Your task to perform on an android device: What's on my calendar today? Image 0: 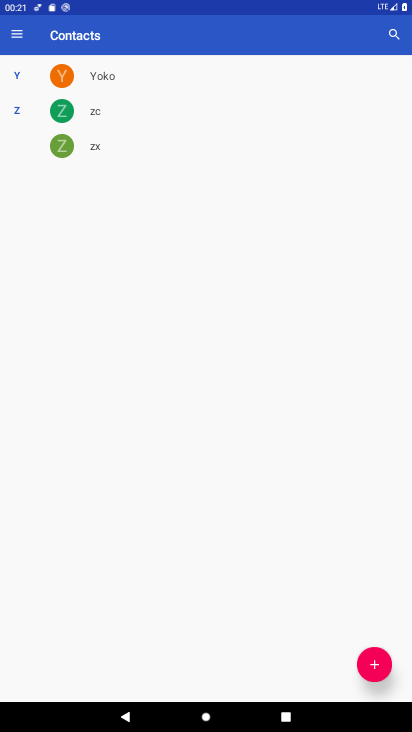
Step 0: press home button
Your task to perform on an android device: What's on my calendar today? Image 1: 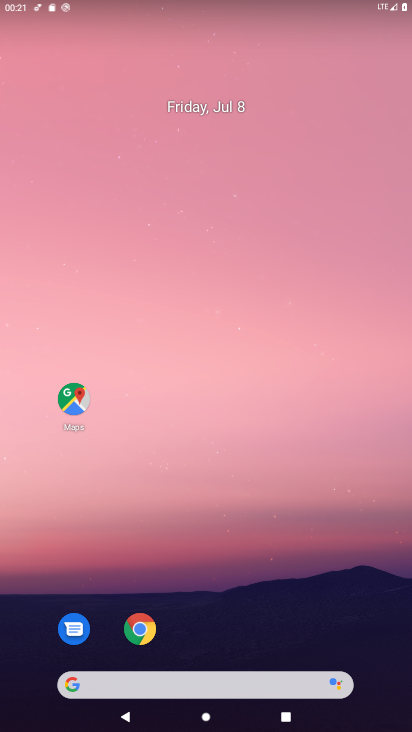
Step 1: drag from (357, 573) to (328, 12)
Your task to perform on an android device: What's on my calendar today? Image 2: 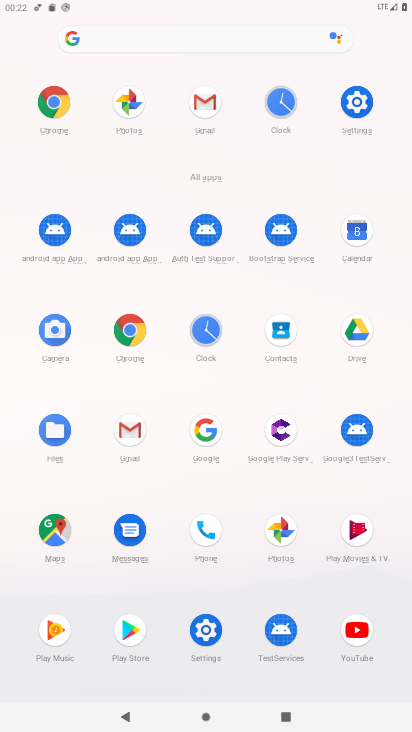
Step 2: click (357, 236)
Your task to perform on an android device: What's on my calendar today? Image 3: 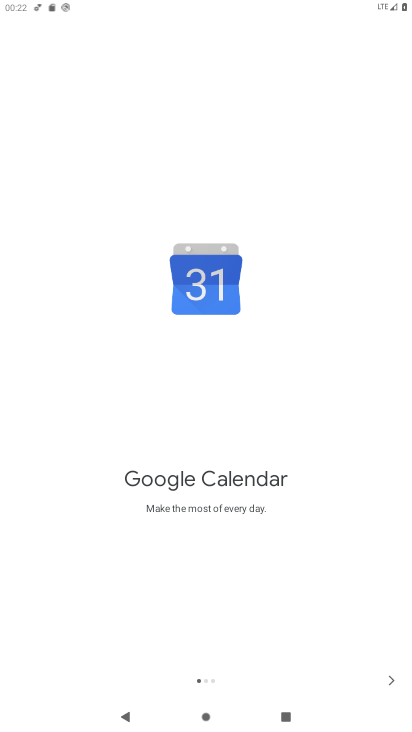
Step 3: click (395, 680)
Your task to perform on an android device: What's on my calendar today? Image 4: 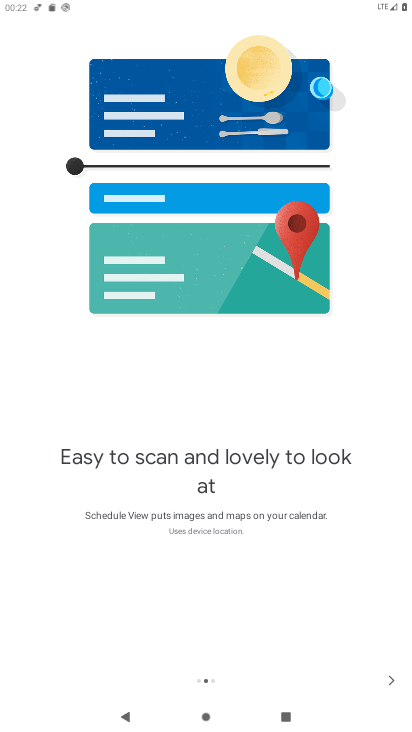
Step 4: click (395, 680)
Your task to perform on an android device: What's on my calendar today? Image 5: 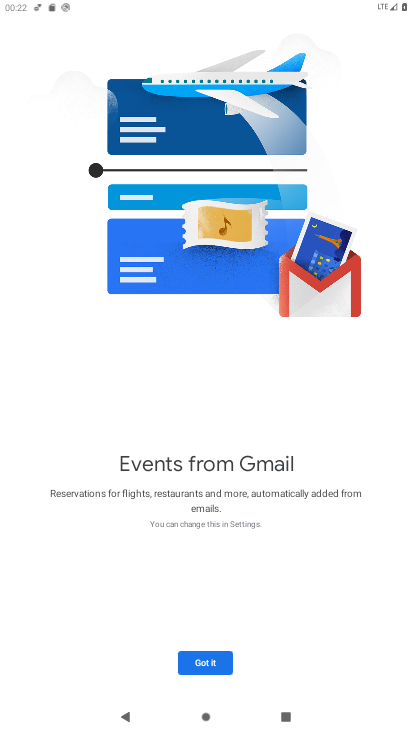
Step 5: click (217, 665)
Your task to perform on an android device: What's on my calendar today? Image 6: 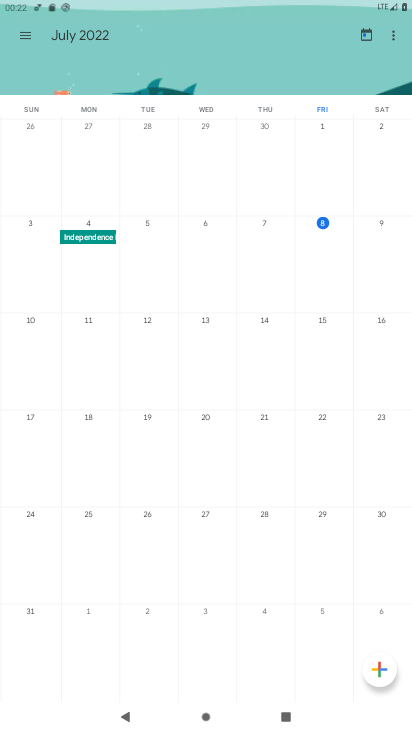
Step 6: click (319, 245)
Your task to perform on an android device: What's on my calendar today? Image 7: 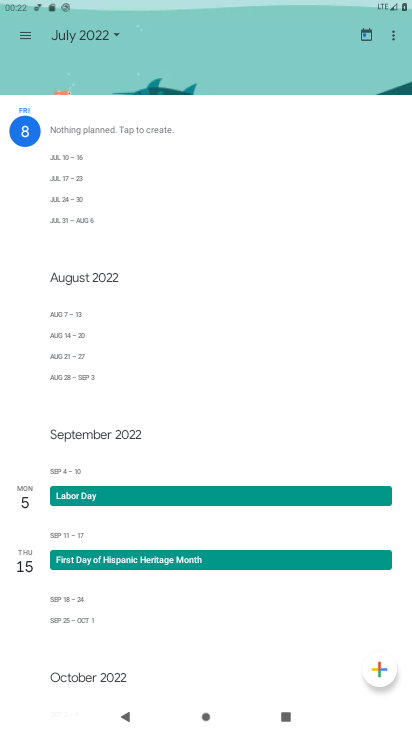
Step 7: task complete